Your task to perform on an android device: open app "Google Keep" (install if not already installed) Image 0: 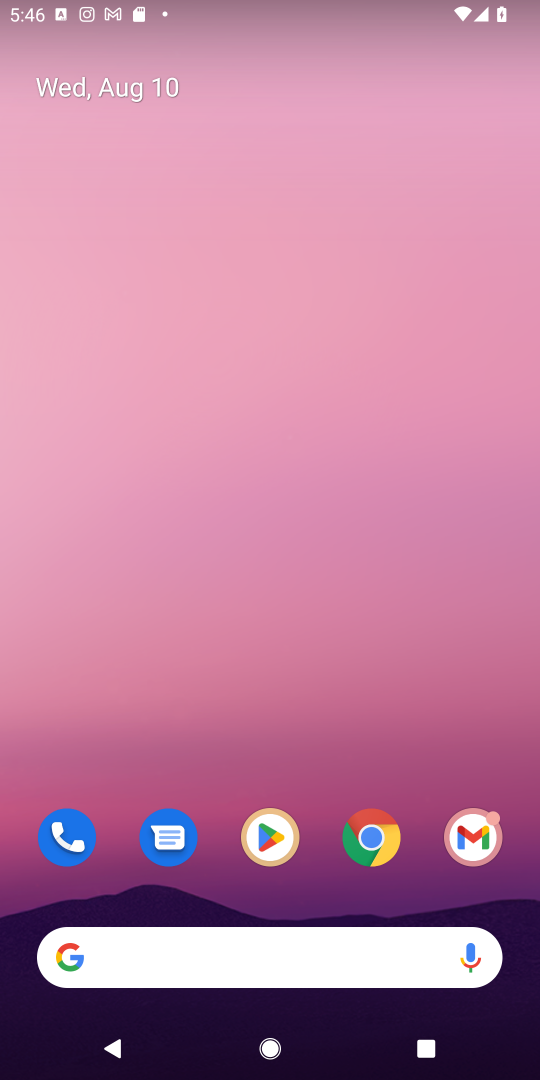
Step 0: press home button
Your task to perform on an android device: open app "Google Keep" (install if not already installed) Image 1: 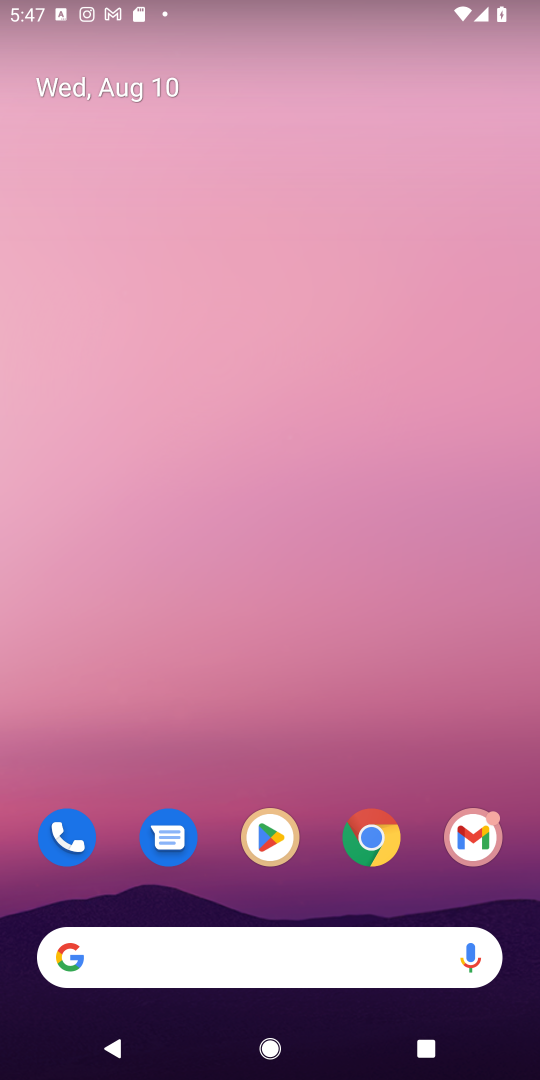
Step 1: click (262, 839)
Your task to perform on an android device: open app "Google Keep" (install if not already installed) Image 2: 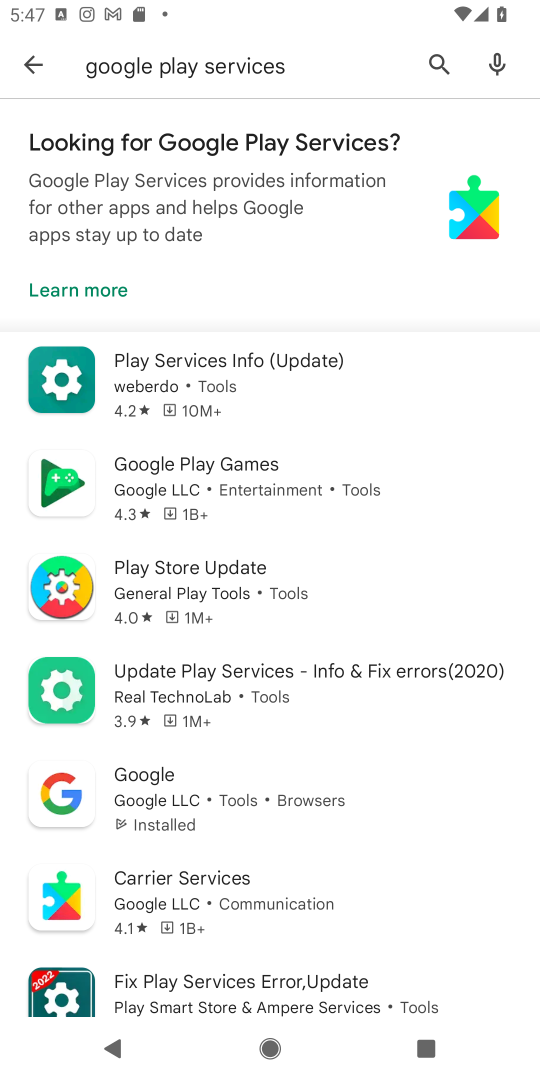
Step 2: click (439, 53)
Your task to perform on an android device: open app "Google Keep" (install if not already installed) Image 3: 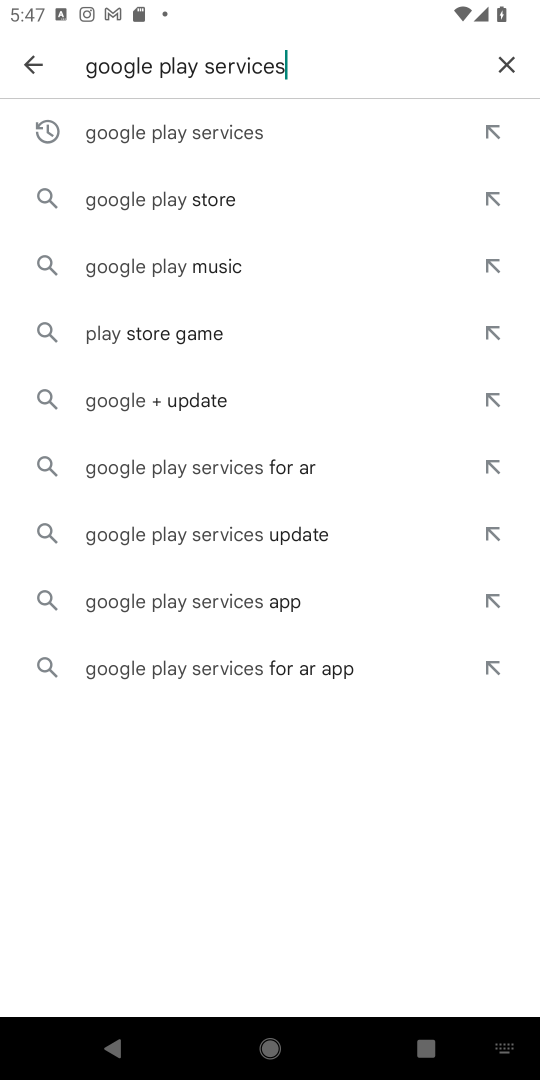
Step 3: click (507, 63)
Your task to perform on an android device: open app "Google Keep" (install if not already installed) Image 4: 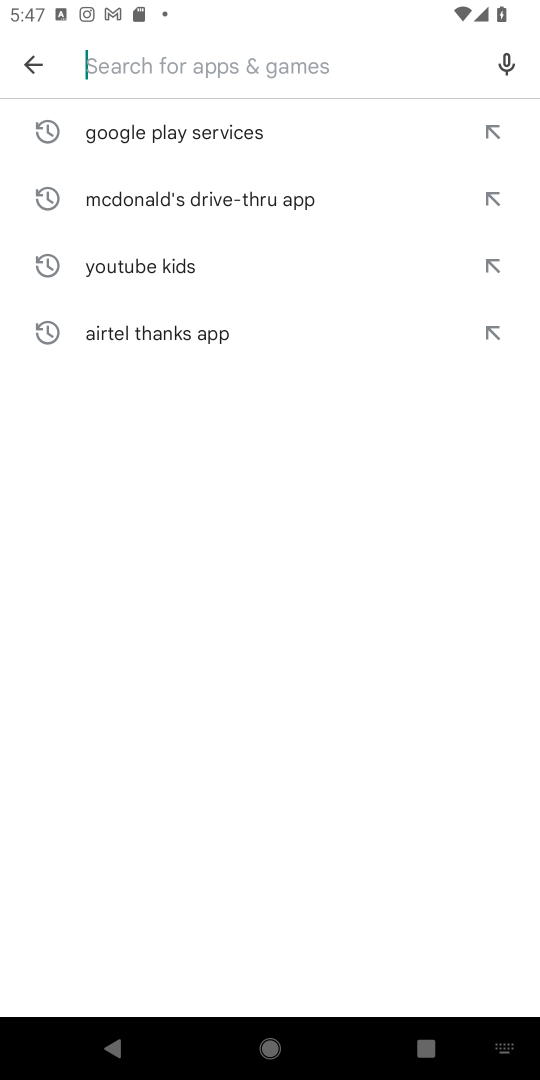
Step 4: type "Google Keep"
Your task to perform on an android device: open app "Google Keep" (install if not already installed) Image 5: 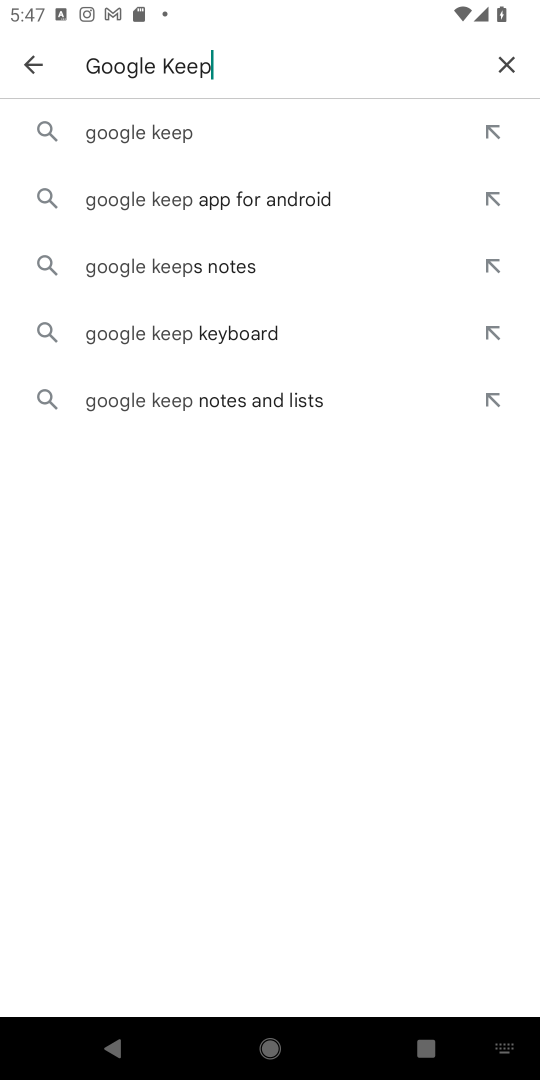
Step 5: click (144, 135)
Your task to perform on an android device: open app "Google Keep" (install if not already installed) Image 6: 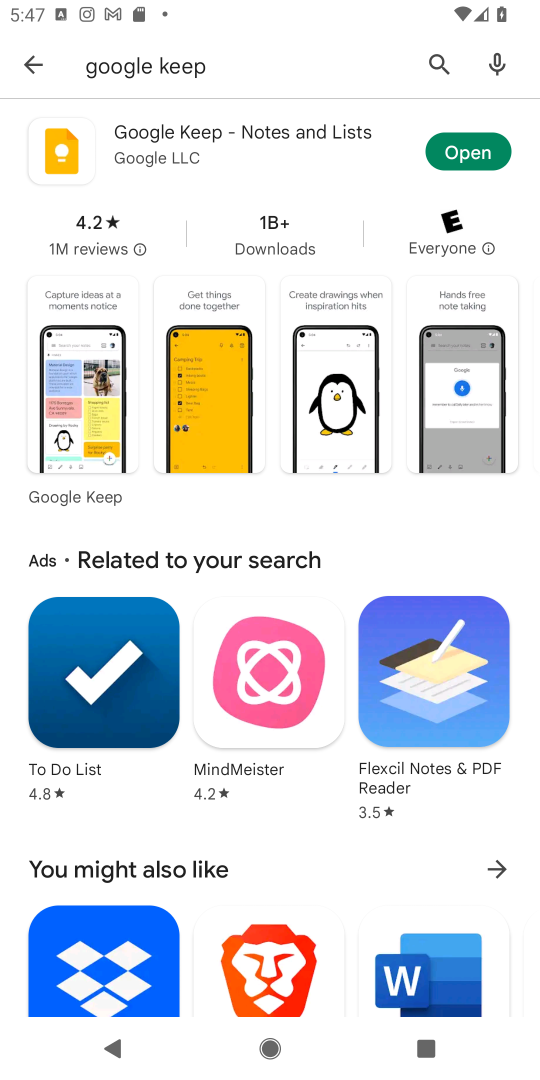
Step 6: click (479, 151)
Your task to perform on an android device: open app "Google Keep" (install if not already installed) Image 7: 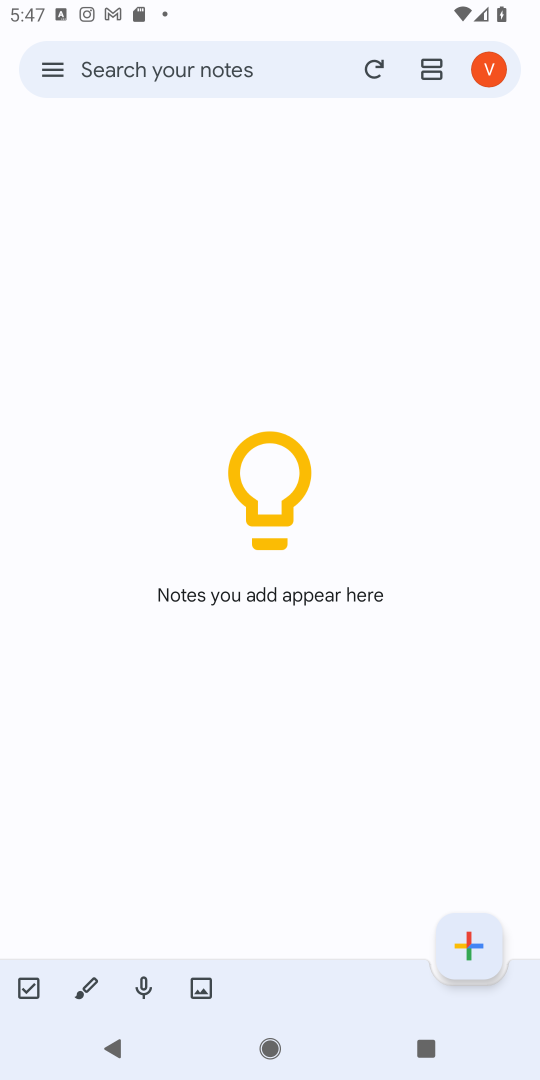
Step 7: task complete